Your task to perform on an android device: Open Google Maps and go to "Timeline" Image 0: 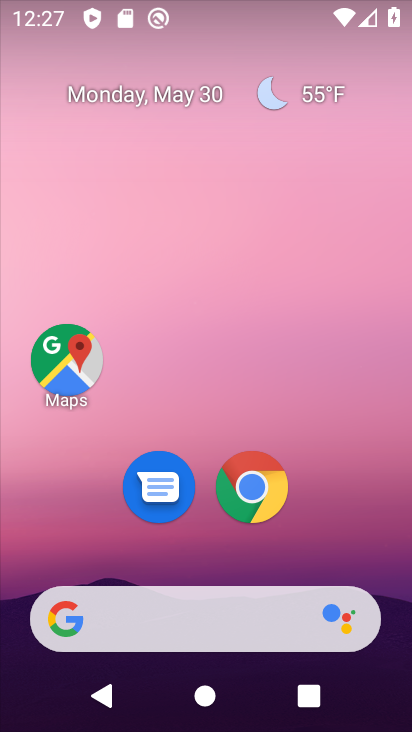
Step 0: click (69, 365)
Your task to perform on an android device: Open Google Maps and go to "Timeline" Image 1: 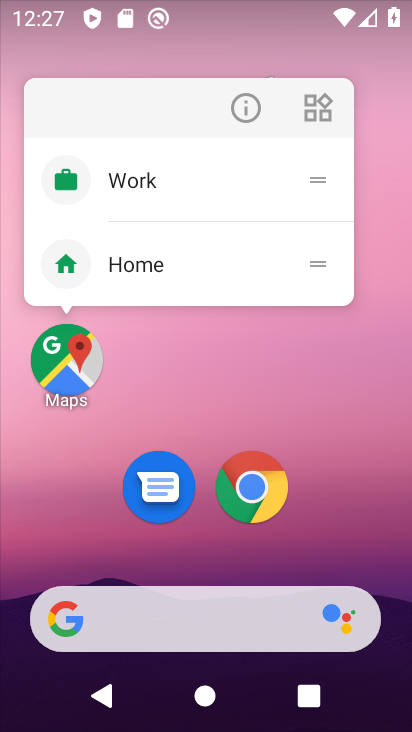
Step 1: click (74, 358)
Your task to perform on an android device: Open Google Maps and go to "Timeline" Image 2: 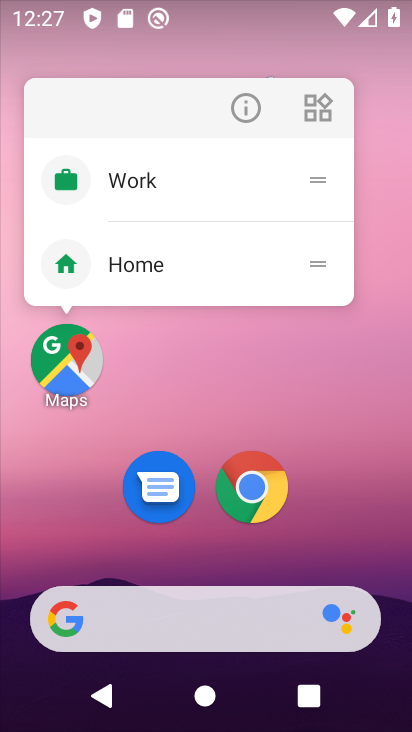
Step 2: click (76, 342)
Your task to perform on an android device: Open Google Maps and go to "Timeline" Image 3: 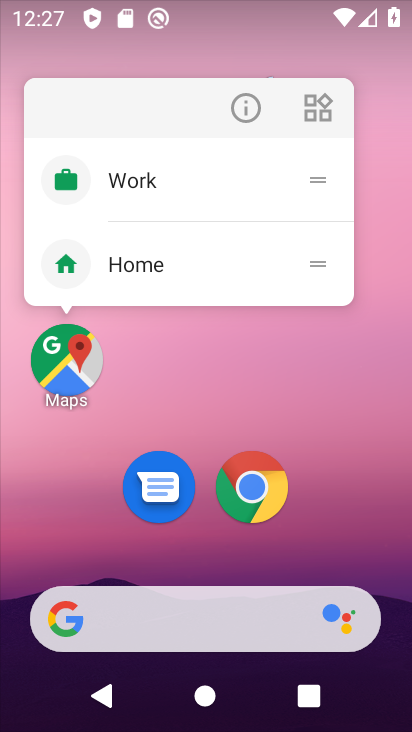
Step 3: click (75, 365)
Your task to perform on an android device: Open Google Maps and go to "Timeline" Image 4: 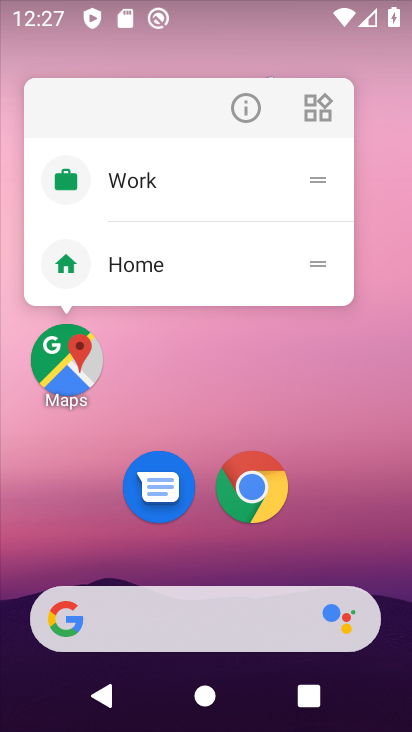
Step 4: click (67, 400)
Your task to perform on an android device: Open Google Maps and go to "Timeline" Image 5: 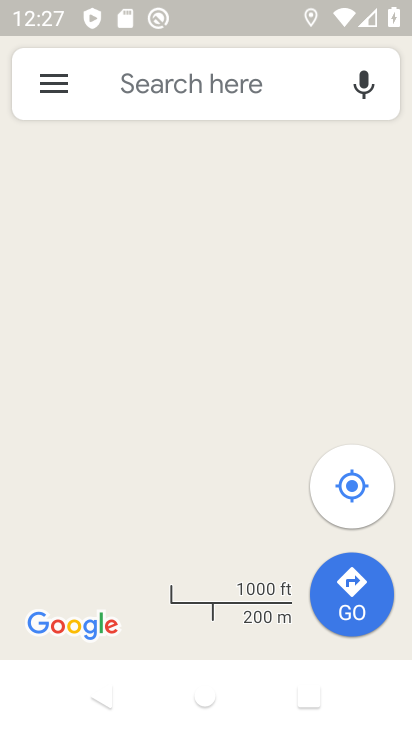
Step 5: click (67, 99)
Your task to perform on an android device: Open Google Maps and go to "Timeline" Image 6: 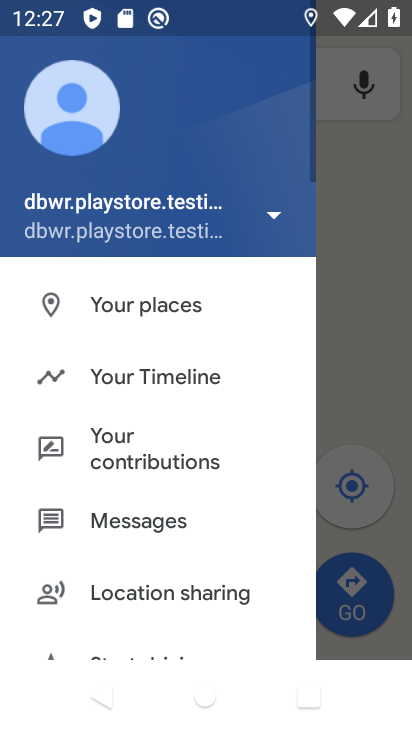
Step 6: click (199, 377)
Your task to perform on an android device: Open Google Maps and go to "Timeline" Image 7: 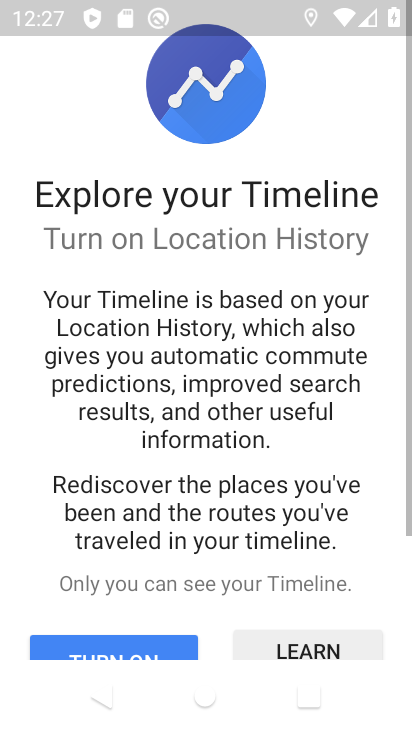
Step 7: drag from (288, 541) to (355, 176)
Your task to perform on an android device: Open Google Maps and go to "Timeline" Image 8: 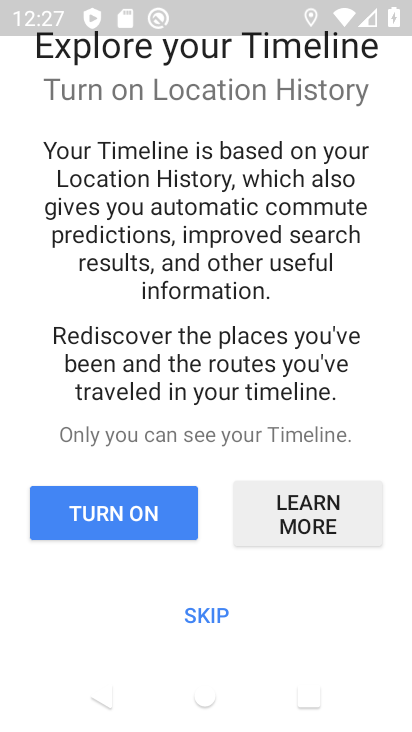
Step 8: click (217, 618)
Your task to perform on an android device: Open Google Maps and go to "Timeline" Image 9: 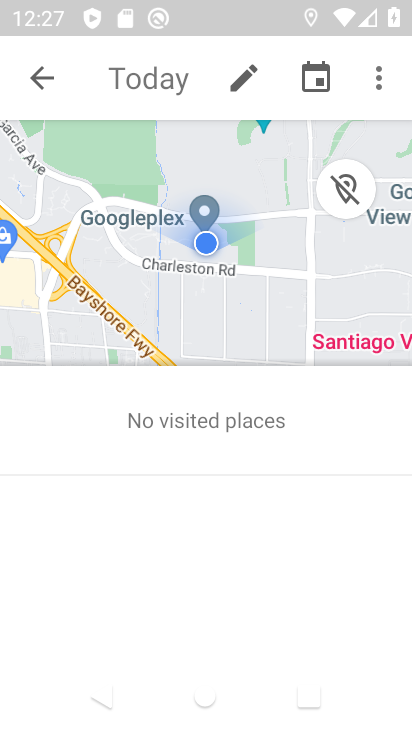
Step 9: task complete